Your task to perform on an android device: open a bookmark in the chrome app Image 0: 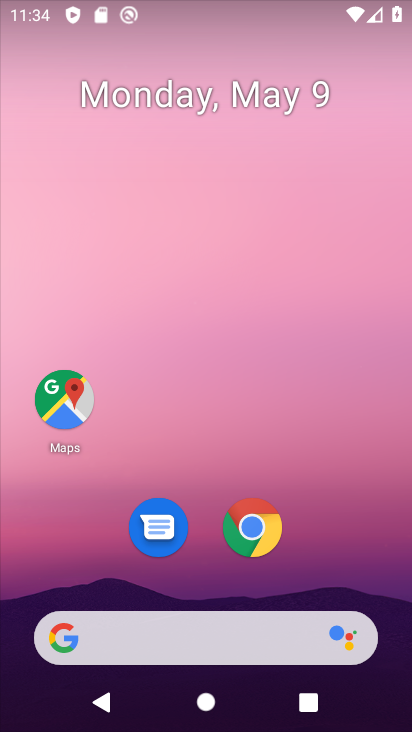
Step 0: drag from (202, 592) to (178, 62)
Your task to perform on an android device: open a bookmark in the chrome app Image 1: 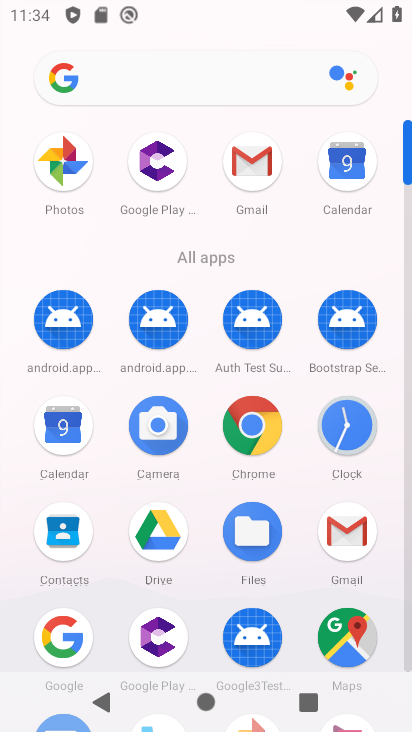
Step 1: click (263, 404)
Your task to perform on an android device: open a bookmark in the chrome app Image 2: 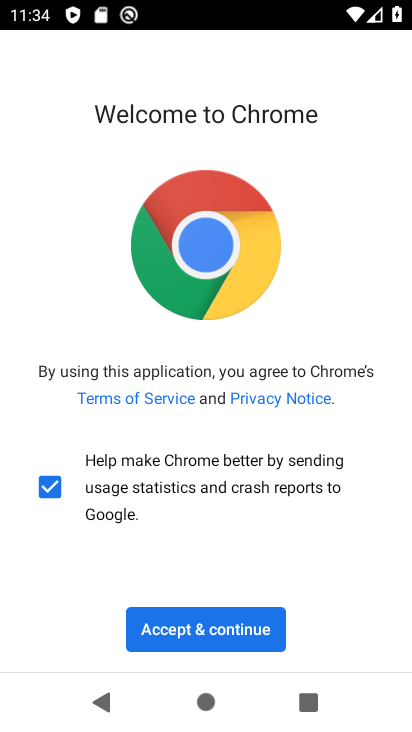
Step 2: click (207, 629)
Your task to perform on an android device: open a bookmark in the chrome app Image 3: 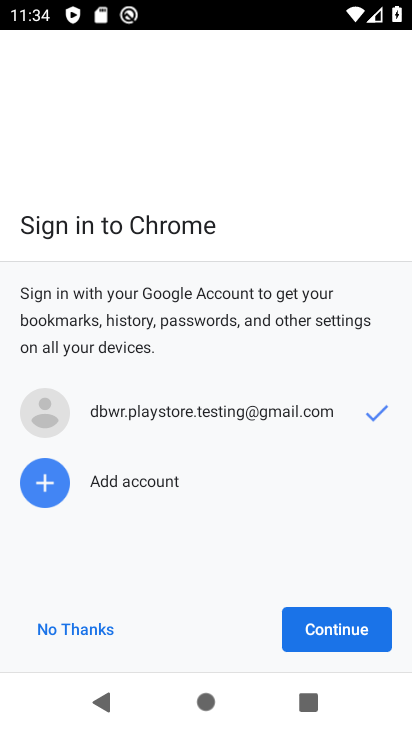
Step 3: click (296, 637)
Your task to perform on an android device: open a bookmark in the chrome app Image 4: 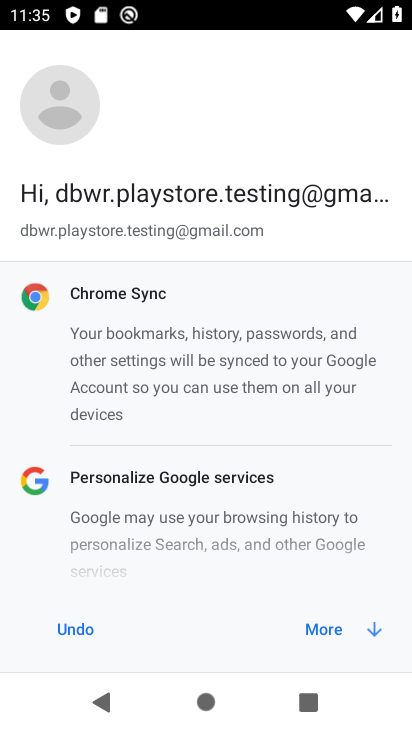
Step 4: click (357, 627)
Your task to perform on an android device: open a bookmark in the chrome app Image 5: 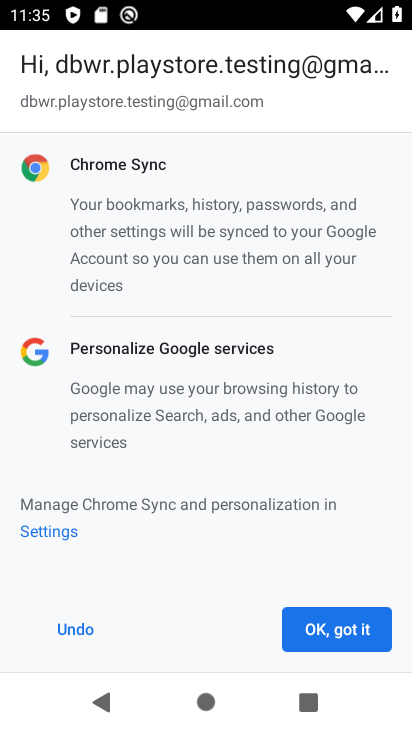
Step 5: click (356, 616)
Your task to perform on an android device: open a bookmark in the chrome app Image 6: 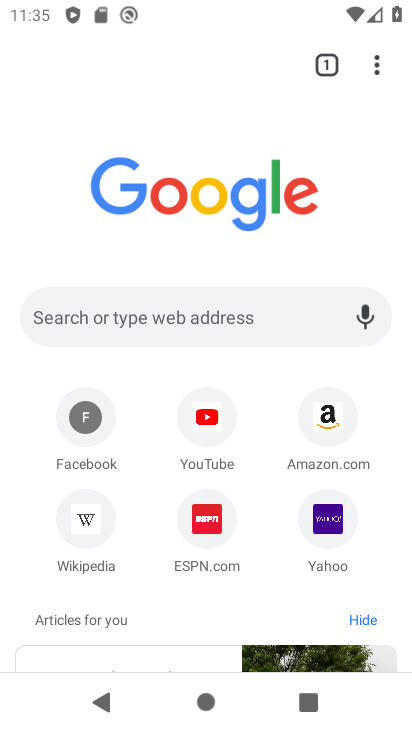
Step 6: click (371, 65)
Your task to perform on an android device: open a bookmark in the chrome app Image 7: 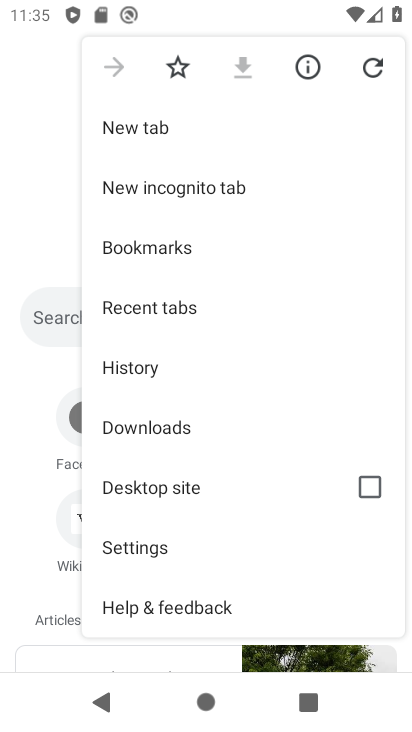
Step 7: click (147, 254)
Your task to perform on an android device: open a bookmark in the chrome app Image 8: 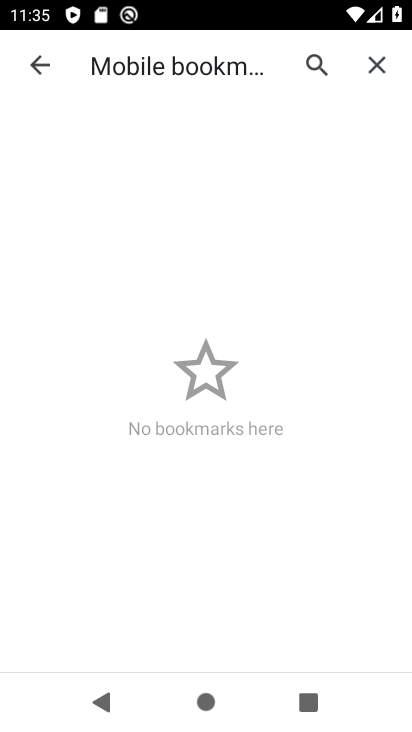
Step 8: task complete